Your task to perform on an android device: open the mobile data screen to see how much data has been used Image 0: 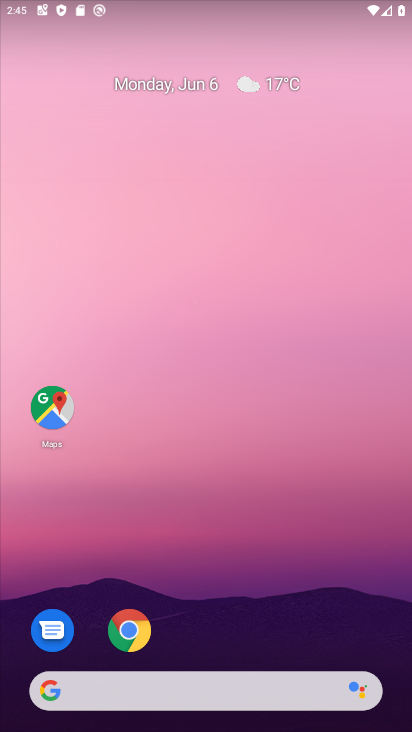
Step 0: drag from (235, 471) to (292, 111)
Your task to perform on an android device: open the mobile data screen to see how much data has been used Image 1: 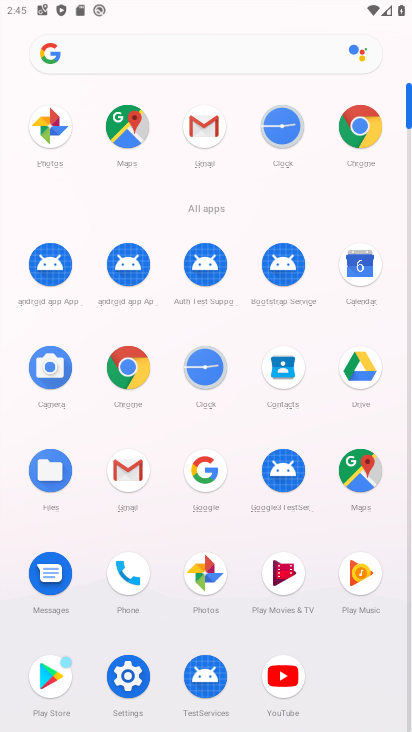
Step 1: click (118, 673)
Your task to perform on an android device: open the mobile data screen to see how much data has been used Image 2: 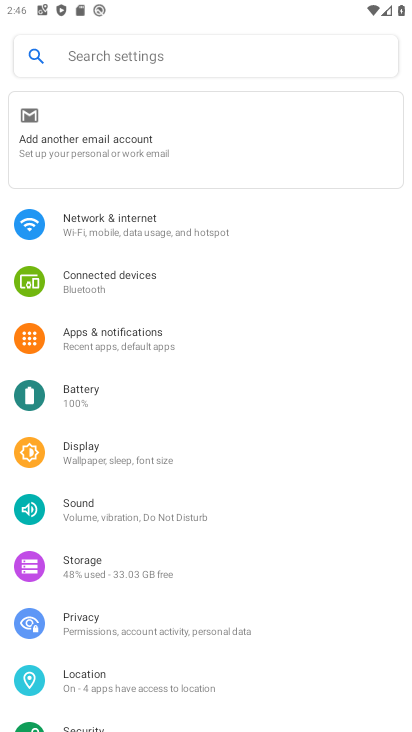
Step 2: click (140, 228)
Your task to perform on an android device: open the mobile data screen to see how much data has been used Image 3: 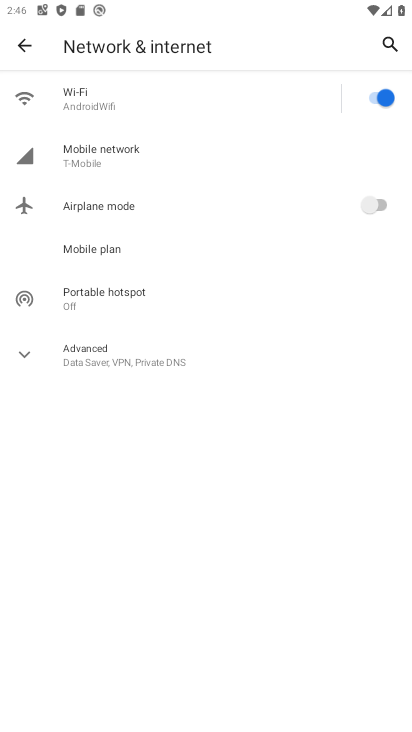
Step 3: click (97, 148)
Your task to perform on an android device: open the mobile data screen to see how much data has been used Image 4: 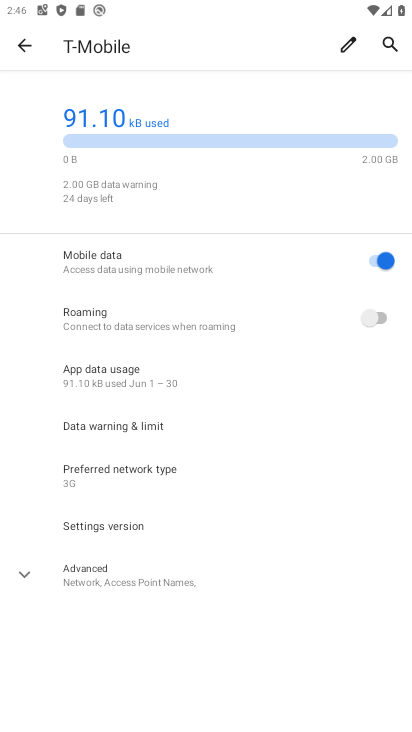
Step 4: click (117, 380)
Your task to perform on an android device: open the mobile data screen to see how much data has been used Image 5: 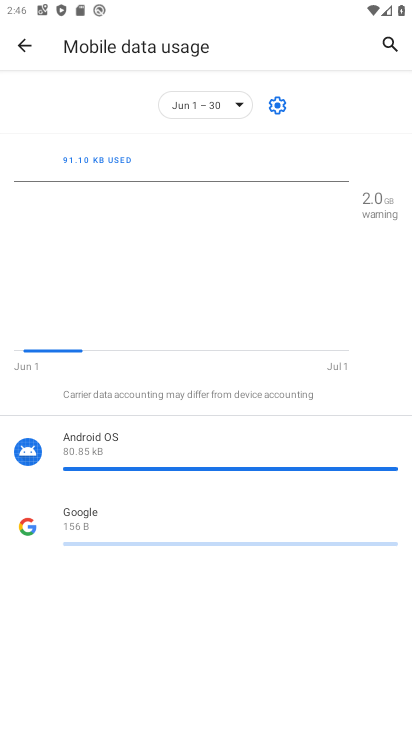
Step 5: task complete